Your task to perform on an android device: visit the assistant section in the google photos Image 0: 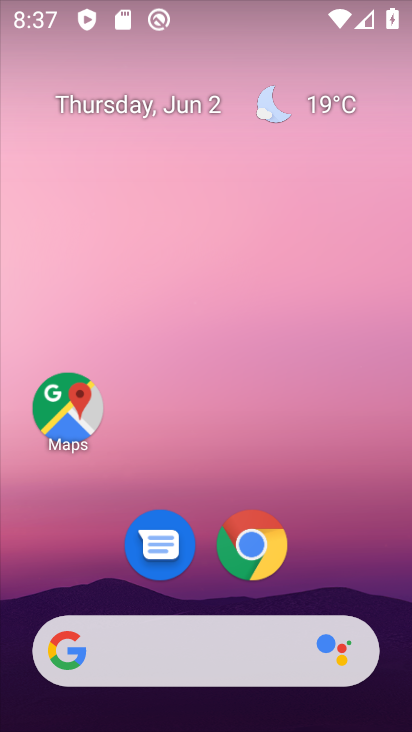
Step 0: drag from (384, 621) to (317, 14)
Your task to perform on an android device: visit the assistant section in the google photos Image 1: 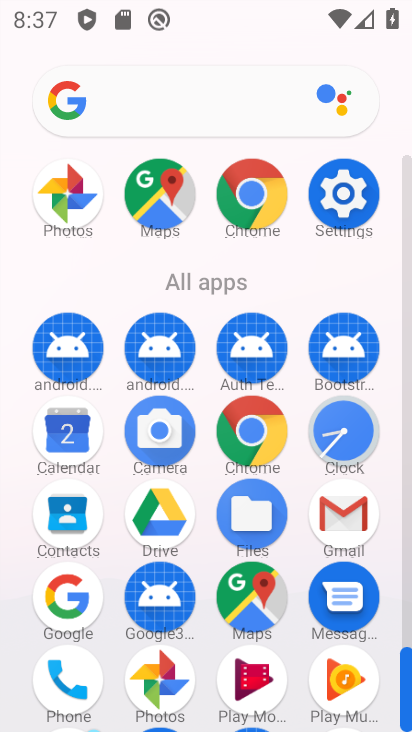
Step 1: click (150, 662)
Your task to perform on an android device: visit the assistant section in the google photos Image 2: 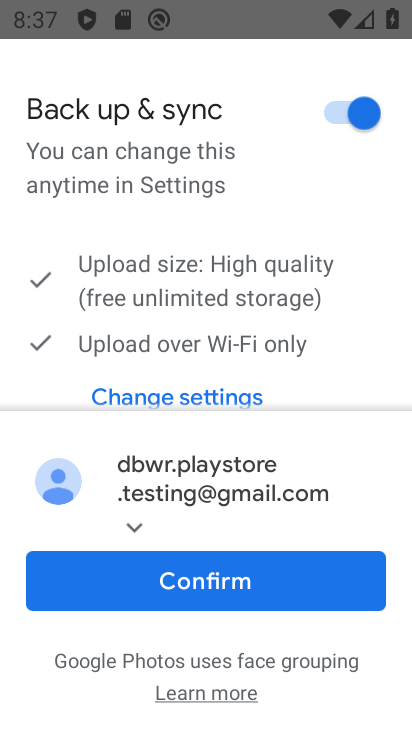
Step 2: click (178, 571)
Your task to perform on an android device: visit the assistant section in the google photos Image 3: 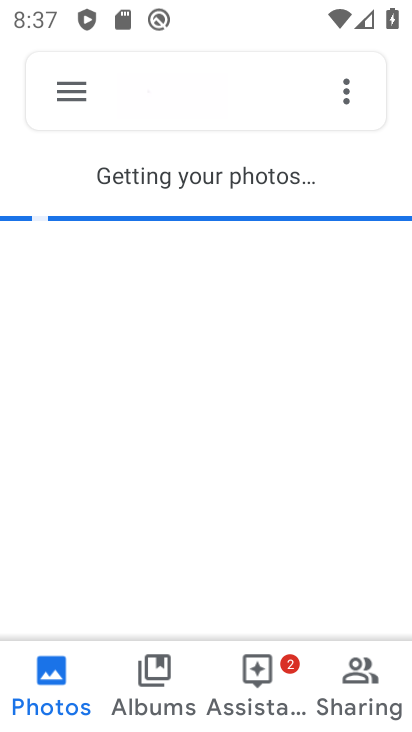
Step 3: click (149, 694)
Your task to perform on an android device: visit the assistant section in the google photos Image 4: 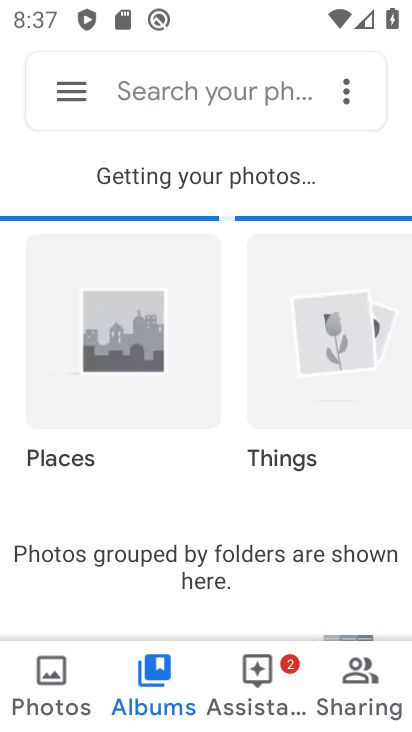
Step 4: task complete